Your task to perform on an android device: choose inbox layout in the gmail app Image 0: 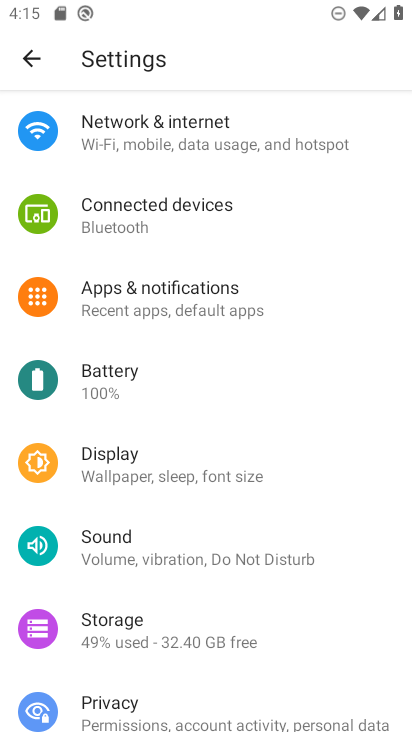
Step 0: press home button
Your task to perform on an android device: choose inbox layout in the gmail app Image 1: 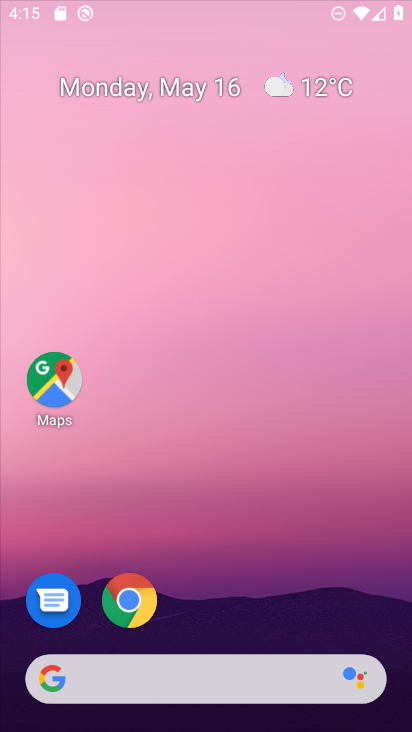
Step 1: drag from (259, 577) to (224, 91)
Your task to perform on an android device: choose inbox layout in the gmail app Image 2: 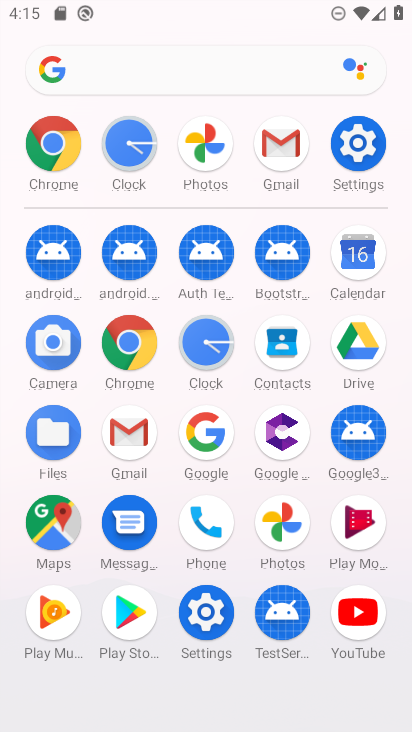
Step 2: click (274, 140)
Your task to perform on an android device: choose inbox layout in the gmail app Image 3: 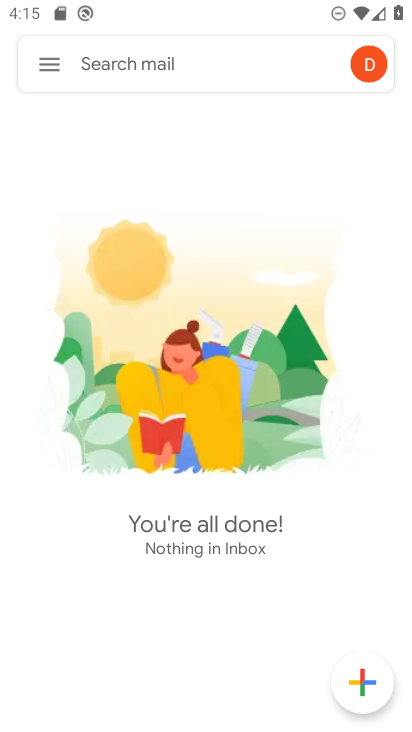
Step 3: click (53, 60)
Your task to perform on an android device: choose inbox layout in the gmail app Image 4: 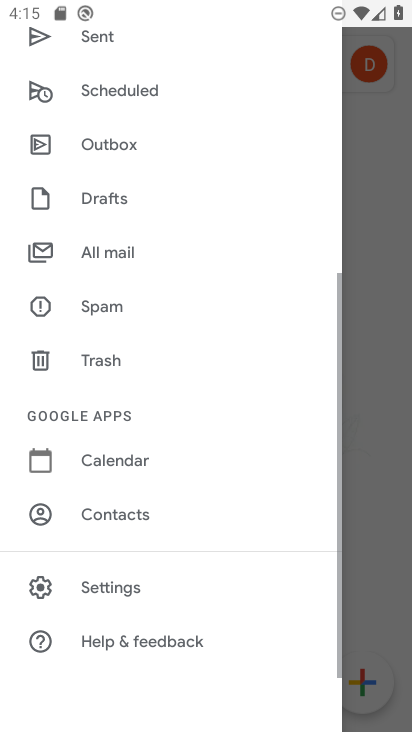
Step 4: drag from (207, 677) to (227, 196)
Your task to perform on an android device: choose inbox layout in the gmail app Image 5: 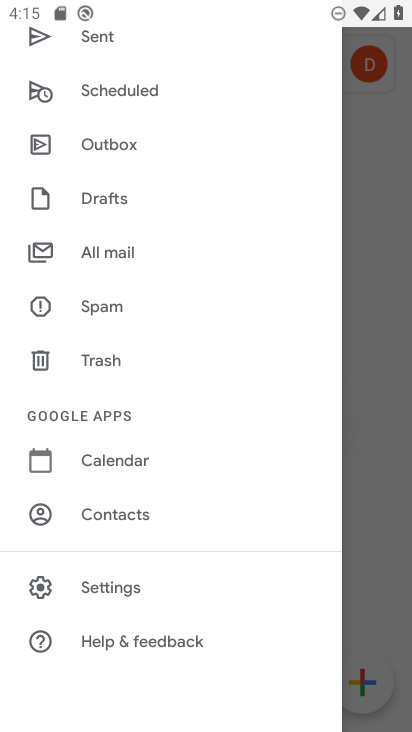
Step 5: click (133, 579)
Your task to perform on an android device: choose inbox layout in the gmail app Image 6: 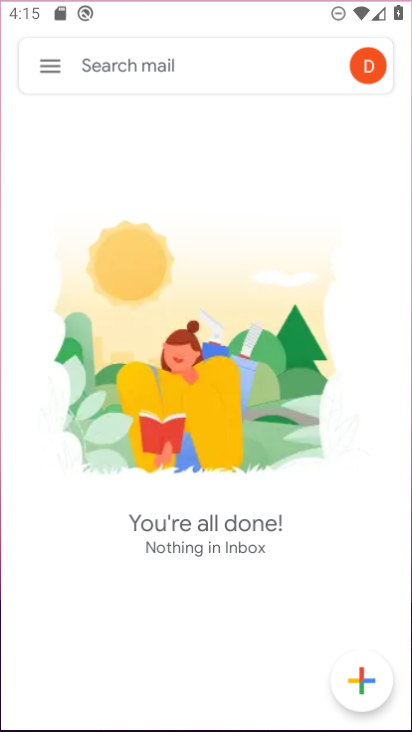
Step 6: click (133, 579)
Your task to perform on an android device: choose inbox layout in the gmail app Image 7: 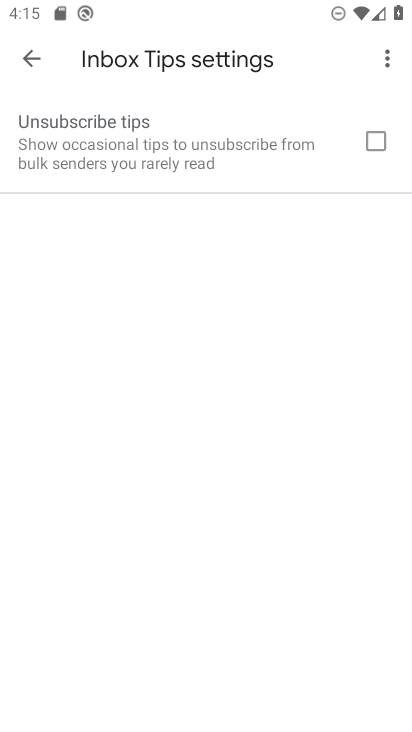
Step 7: click (53, 74)
Your task to perform on an android device: choose inbox layout in the gmail app Image 8: 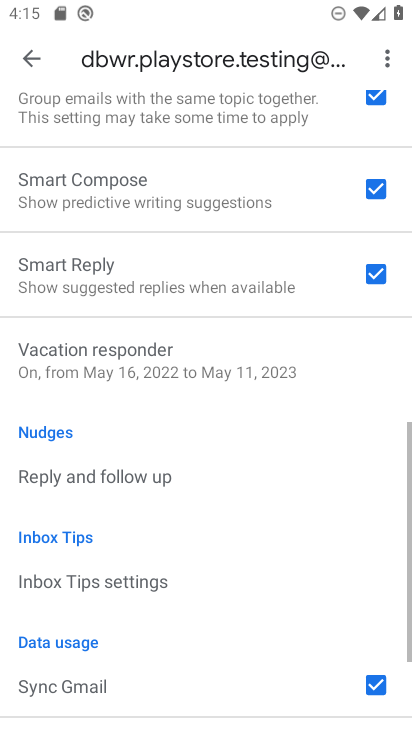
Step 8: drag from (266, 240) to (244, 686)
Your task to perform on an android device: choose inbox layout in the gmail app Image 9: 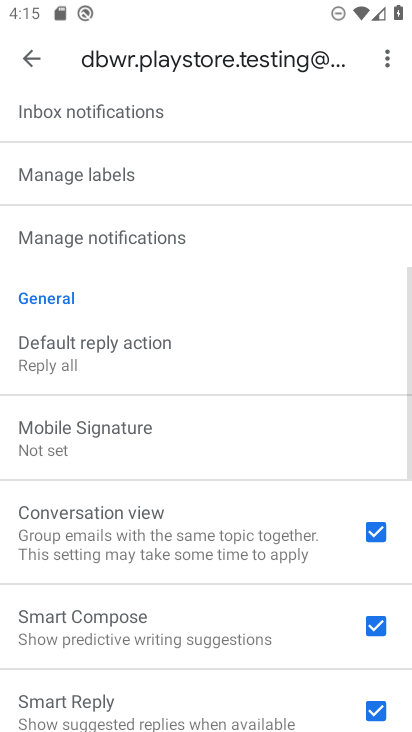
Step 9: drag from (240, 163) to (237, 609)
Your task to perform on an android device: choose inbox layout in the gmail app Image 10: 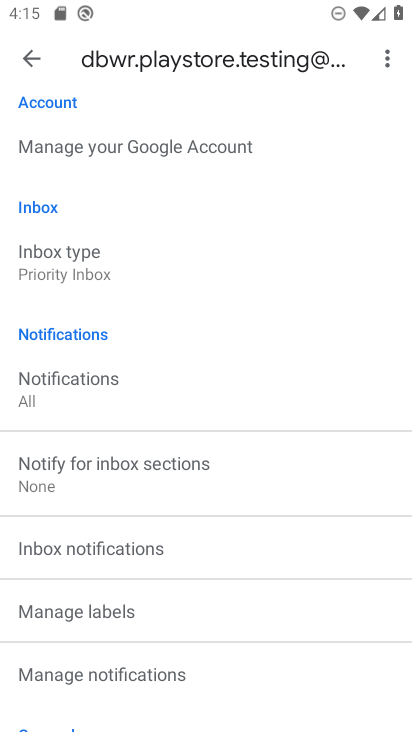
Step 10: drag from (226, 218) to (190, 453)
Your task to perform on an android device: choose inbox layout in the gmail app Image 11: 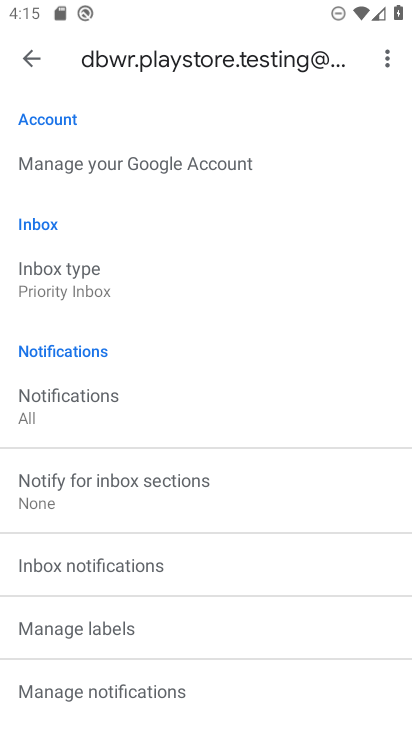
Step 11: click (96, 282)
Your task to perform on an android device: choose inbox layout in the gmail app Image 12: 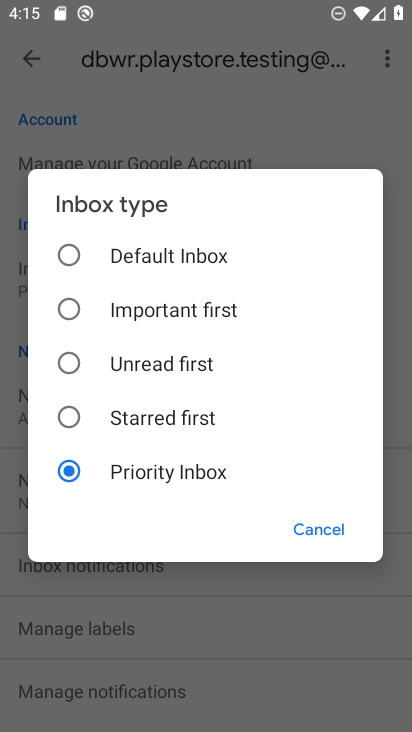
Step 12: click (180, 272)
Your task to perform on an android device: choose inbox layout in the gmail app Image 13: 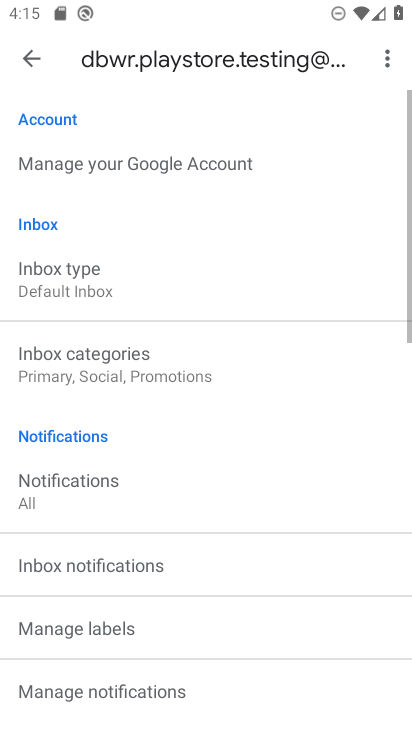
Step 13: task complete